Your task to perform on an android device: toggle javascript in the chrome app Image 0: 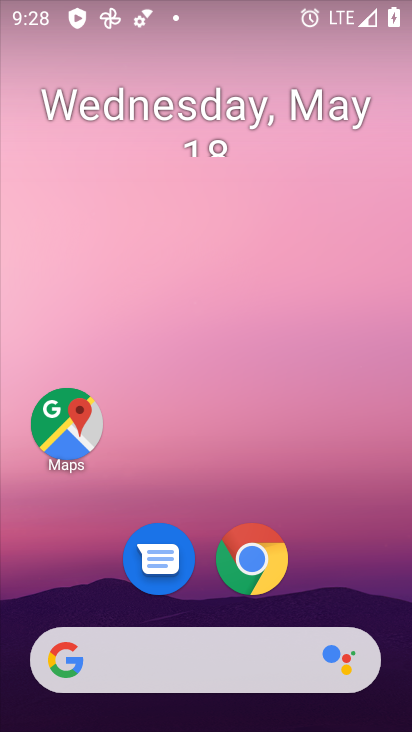
Step 0: drag from (328, 543) to (262, 13)
Your task to perform on an android device: toggle javascript in the chrome app Image 1: 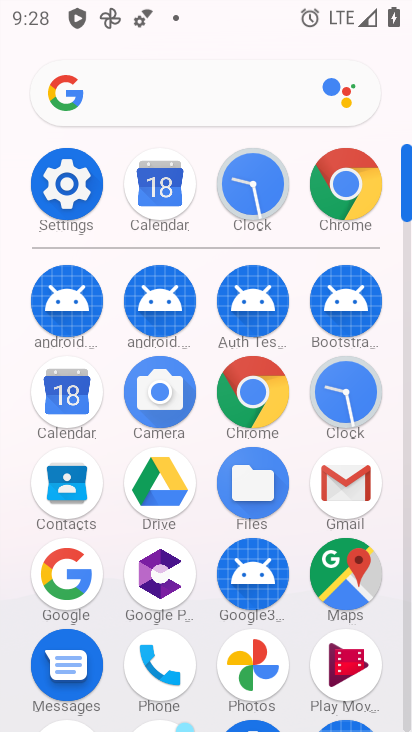
Step 1: click (254, 383)
Your task to perform on an android device: toggle javascript in the chrome app Image 2: 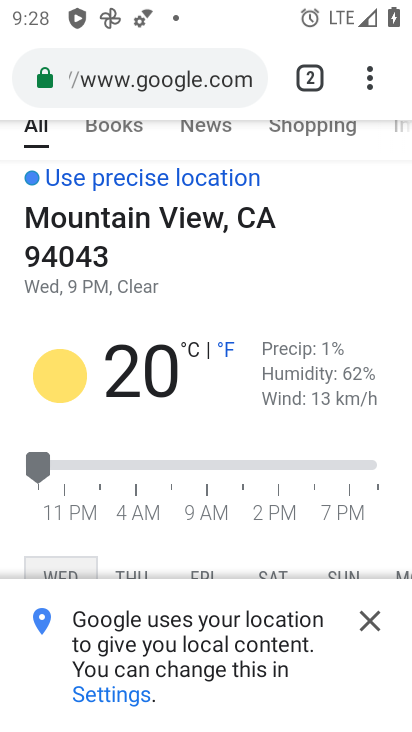
Step 2: drag from (371, 78) to (220, 599)
Your task to perform on an android device: toggle javascript in the chrome app Image 3: 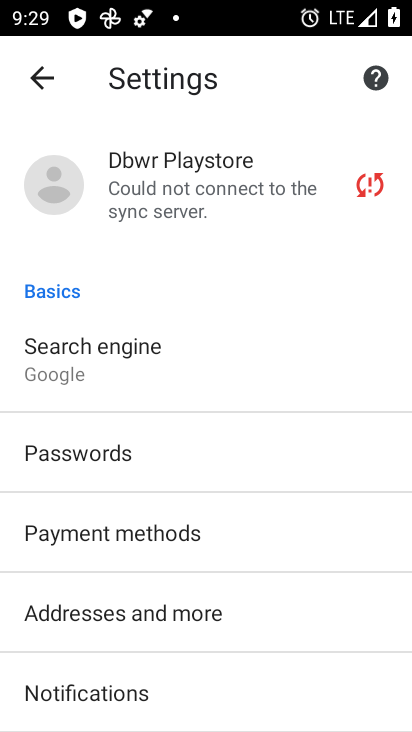
Step 3: drag from (269, 613) to (263, 169)
Your task to perform on an android device: toggle javascript in the chrome app Image 4: 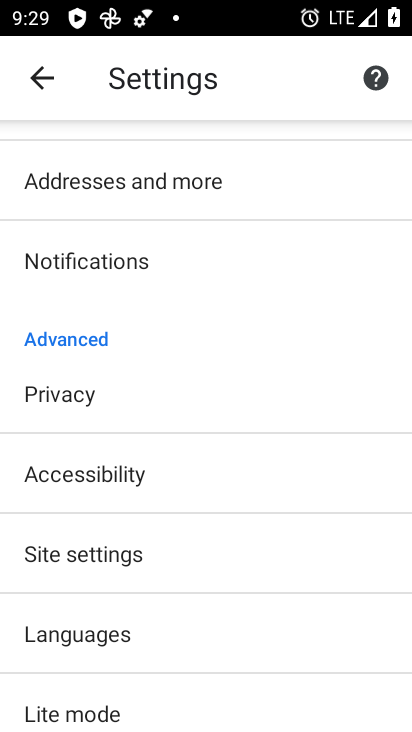
Step 4: drag from (181, 673) to (240, 216)
Your task to perform on an android device: toggle javascript in the chrome app Image 5: 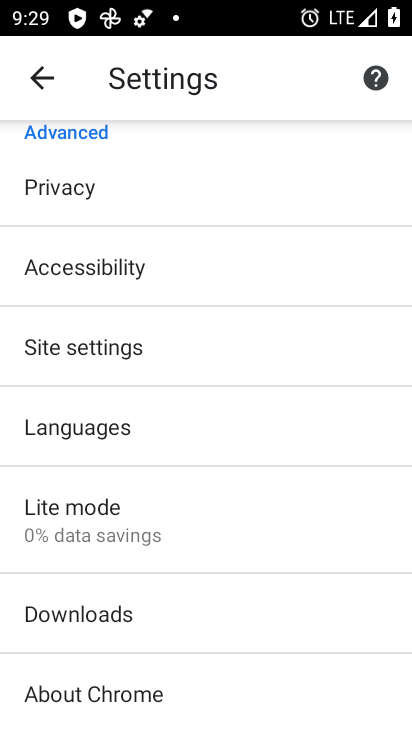
Step 5: click (154, 340)
Your task to perform on an android device: toggle javascript in the chrome app Image 6: 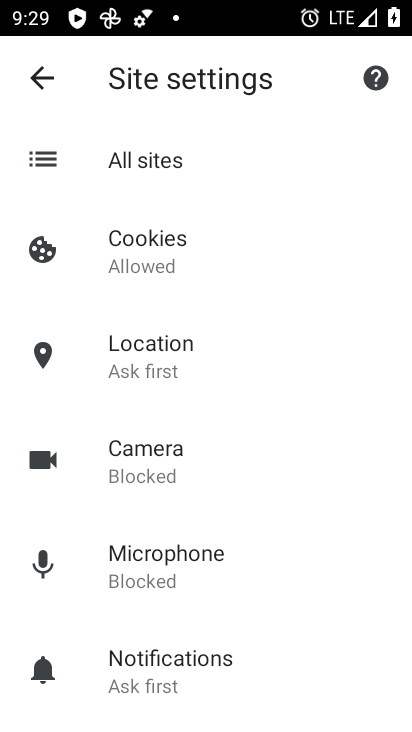
Step 6: drag from (241, 545) to (271, 197)
Your task to perform on an android device: toggle javascript in the chrome app Image 7: 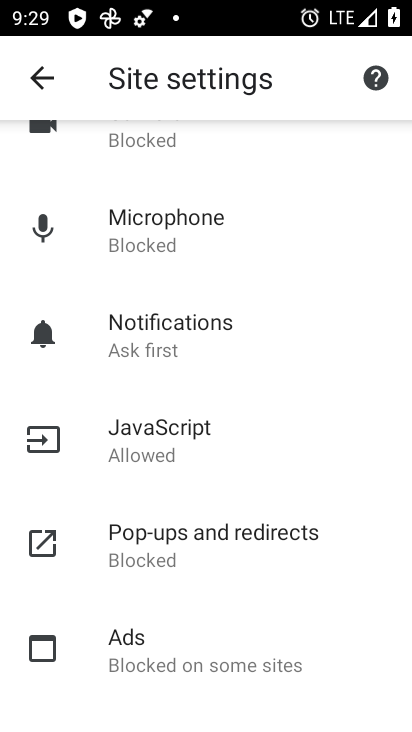
Step 7: click (197, 418)
Your task to perform on an android device: toggle javascript in the chrome app Image 8: 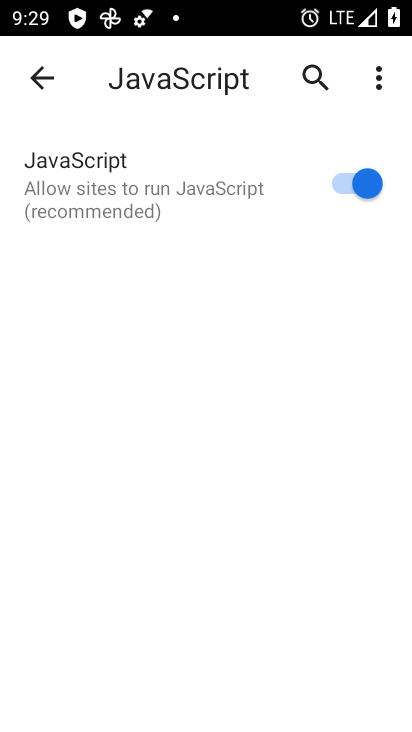
Step 8: click (356, 207)
Your task to perform on an android device: toggle javascript in the chrome app Image 9: 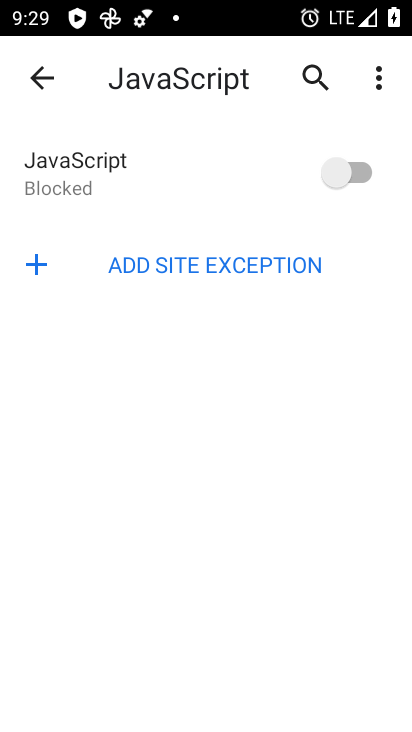
Step 9: task complete